Your task to perform on an android device: turn on bluetooth scan Image 0: 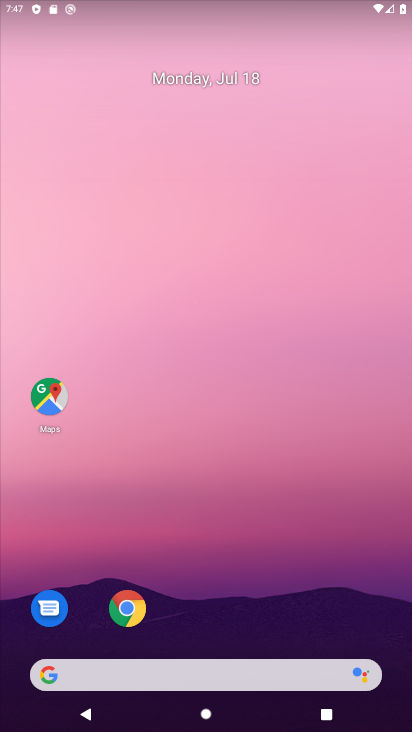
Step 0: drag from (26, 703) to (141, 173)
Your task to perform on an android device: turn on bluetooth scan Image 1: 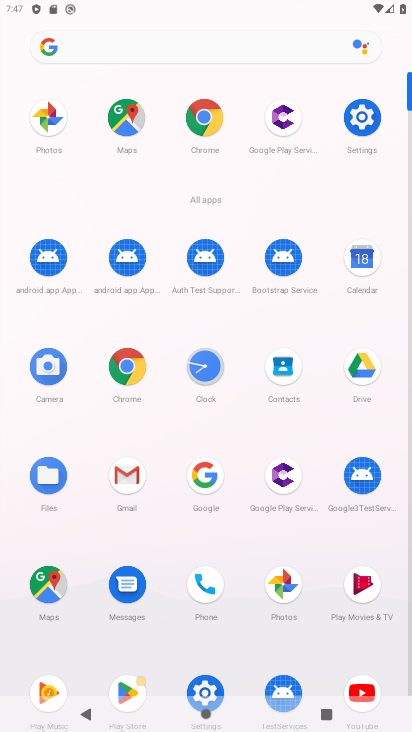
Step 1: click (201, 689)
Your task to perform on an android device: turn on bluetooth scan Image 2: 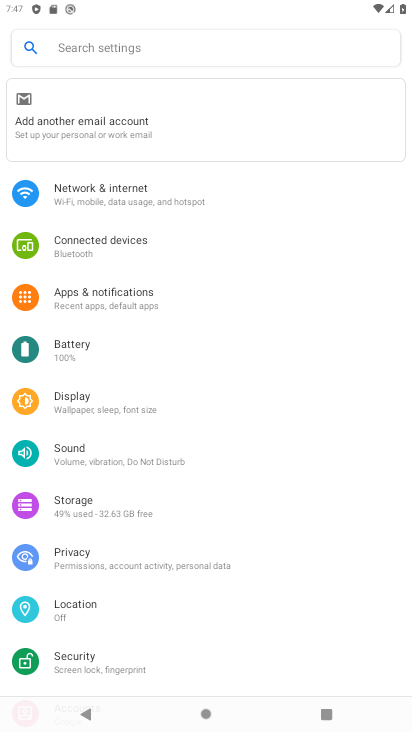
Step 2: click (100, 257)
Your task to perform on an android device: turn on bluetooth scan Image 3: 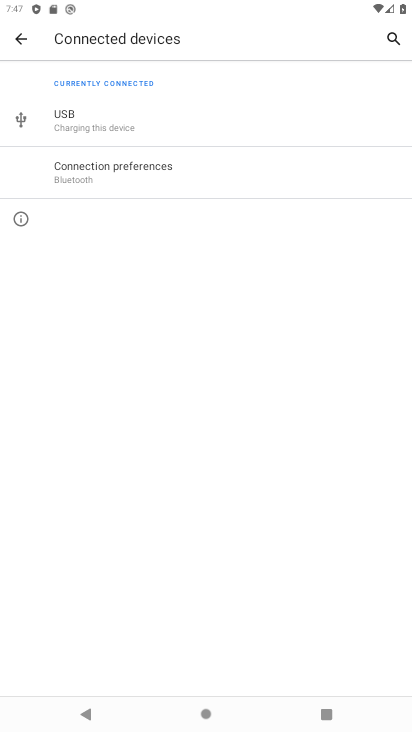
Step 3: click (110, 176)
Your task to perform on an android device: turn on bluetooth scan Image 4: 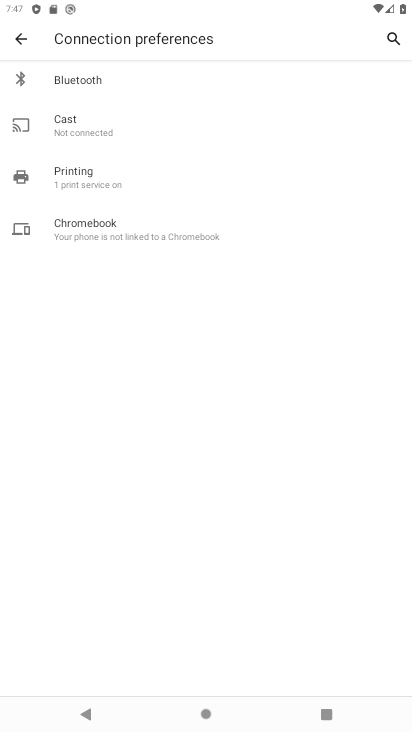
Step 4: click (97, 93)
Your task to perform on an android device: turn on bluetooth scan Image 5: 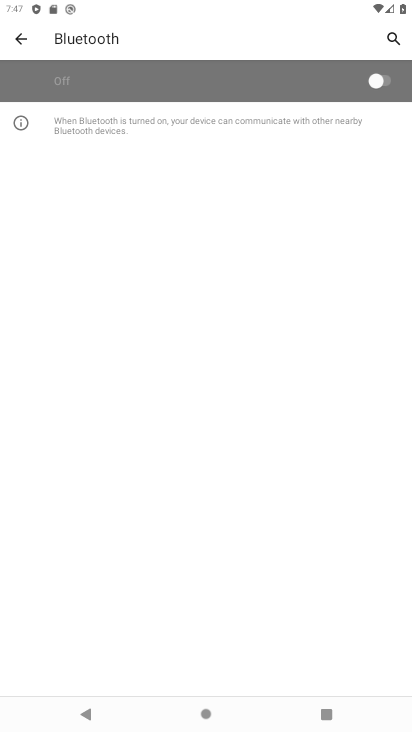
Step 5: click (378, 76)
Your task to perform on an android device: turn on bluetooth scan Image 6: 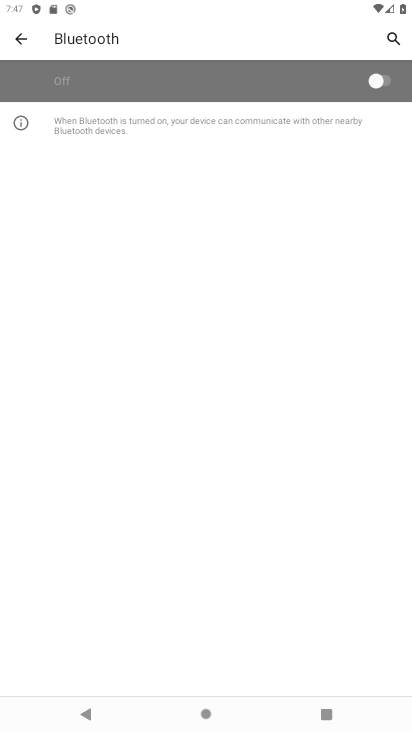
Step 6: task complete